Your task to perform on an android device: Go to notification settings Image 0: 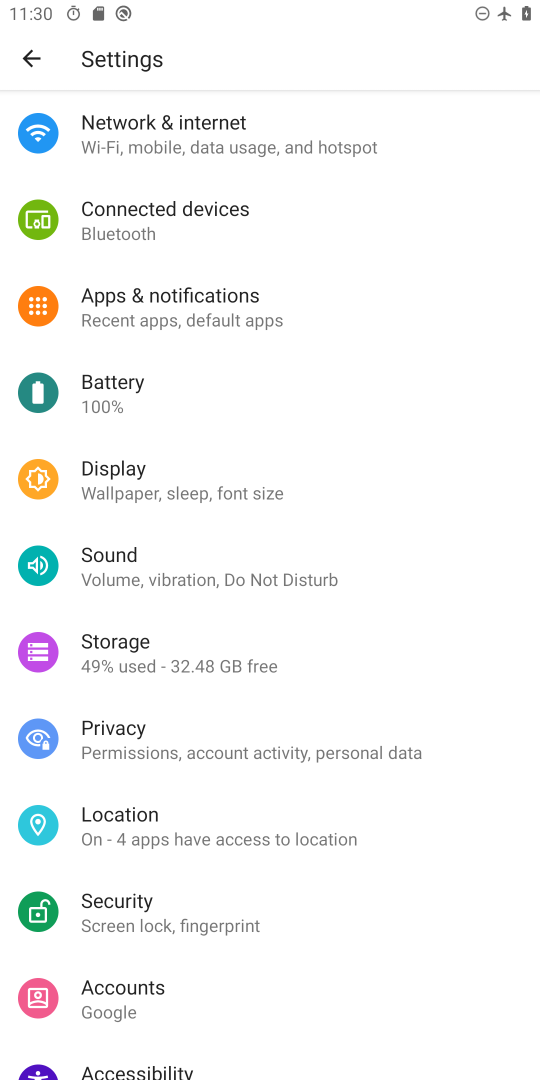
Step 0: click (286, 319)
Your task to perform on an android device: Go to notification settings Image 1: 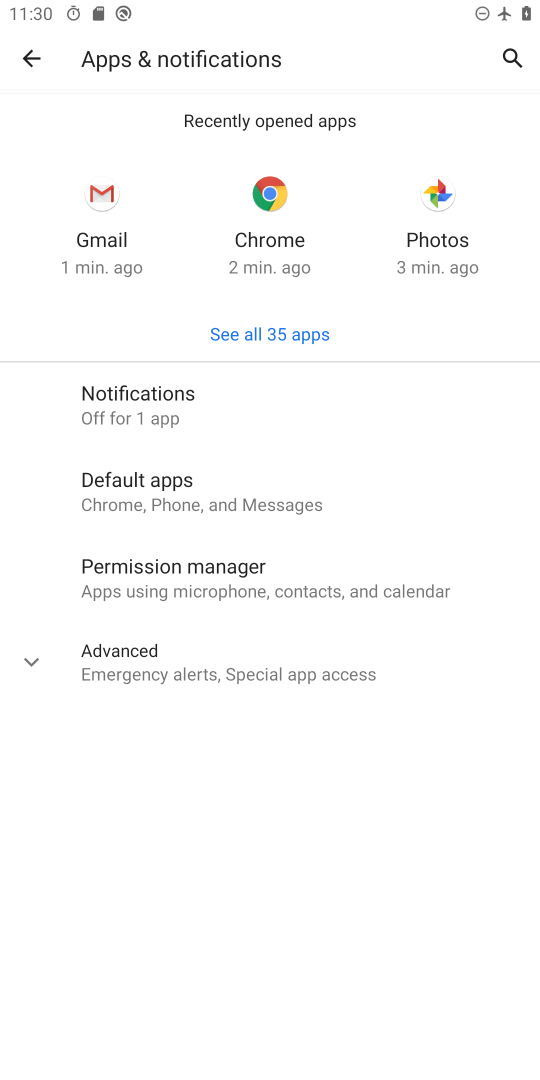
Step 1: task complete